Your task to perform on an android device: Open calendar and show me the fourth week of next month Image 0: 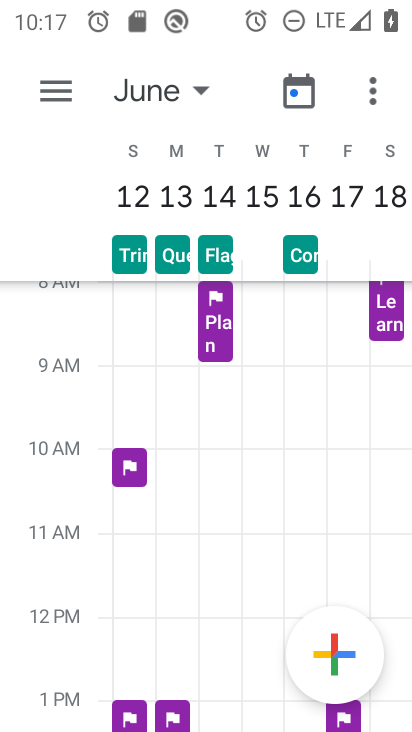
Step 0: click (117, 95)
Your task to perform on an android device: Open calendar and show me the fourth week of next month Image 1: 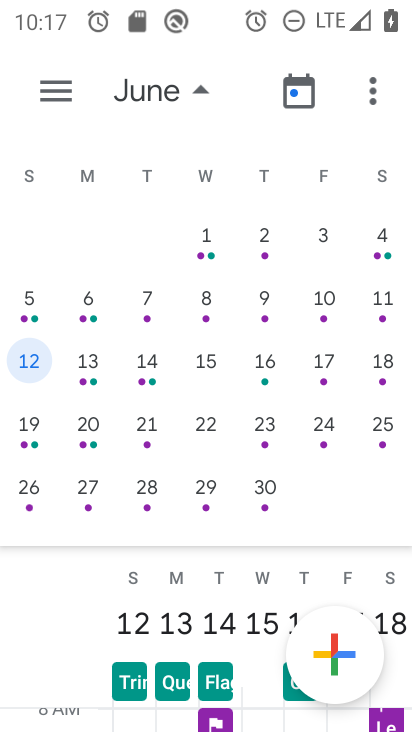
Step 1: click (295, 77)
Your task to perform on an android device: Open calendar and show me the fourth week of next month Image 2: 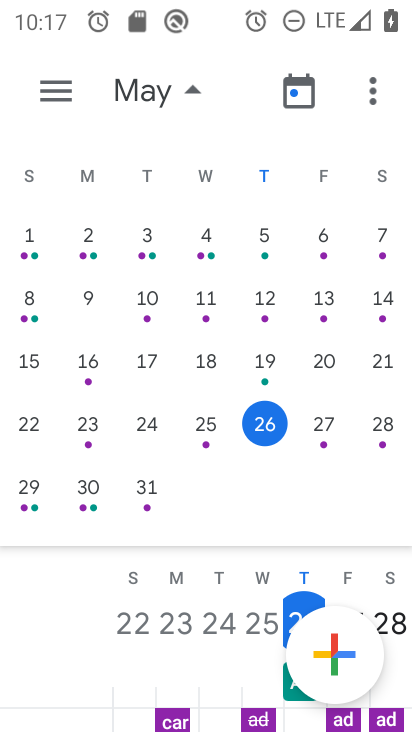
Step 2: drag from (374, 357) to (9, 158)
Your task to perform on an android device: Open calendar and show me the fourth week of next month Image 3: 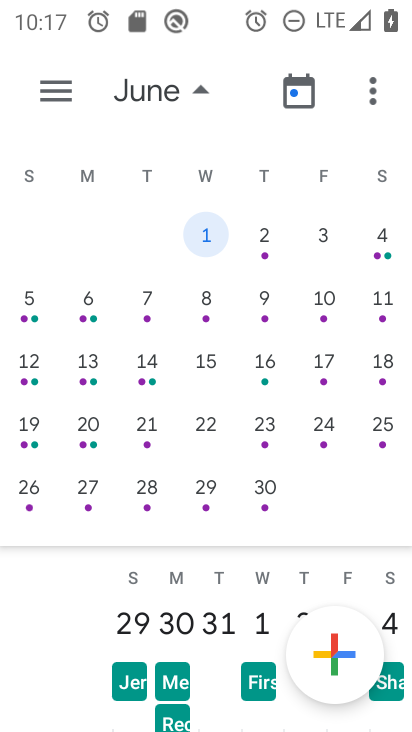
Step 3: click (26, 430)
Your task to perform on an android device: Open calendar and show me the fourth week of next month Image 4: 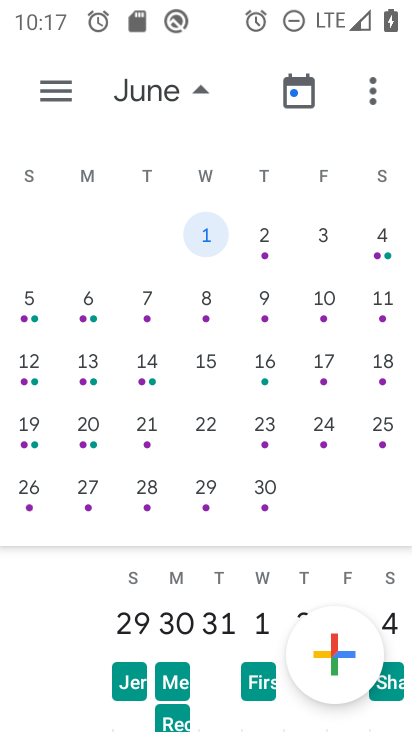
Step 4: click (32, 423)
Your task to perform on an android device: Open calendar and show me the fourth week of next month Image 5: 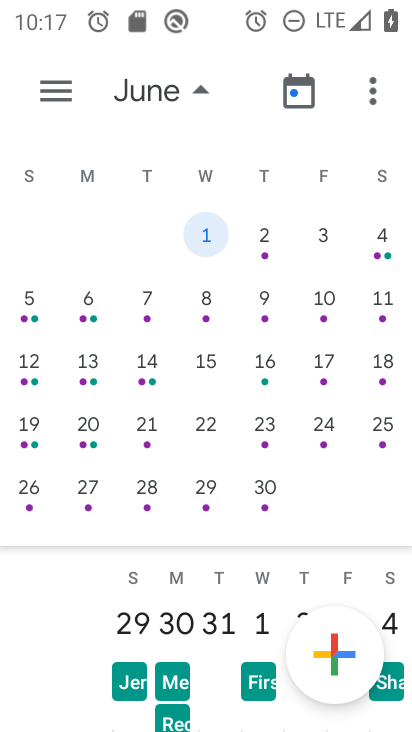
Step 5: click (41, 427)
Your task to perform on an android device: Open calendar and show me the fourth week of next month Image 6: 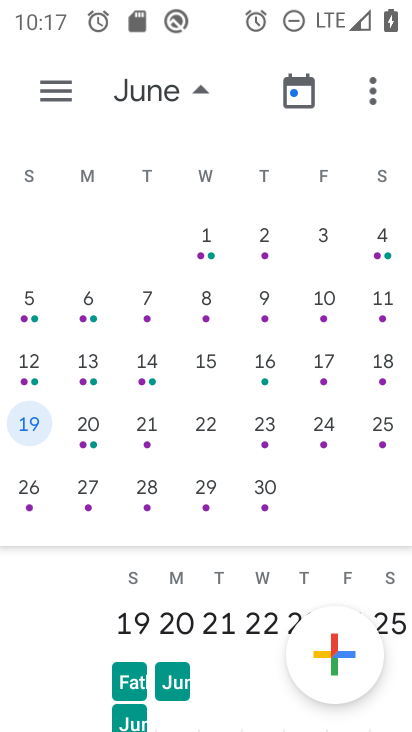
Step 6: click (52, 105)
Your task to perform on an android device: Open calendar and show me the fourth week of next month Image 7: 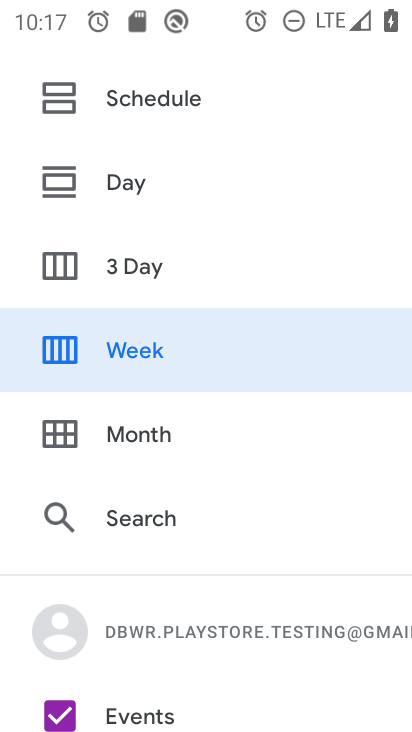
Step 7: click (159, 328)
Your task to perform on an android device: Open calendar and show me the fourth week of next month Image 8: 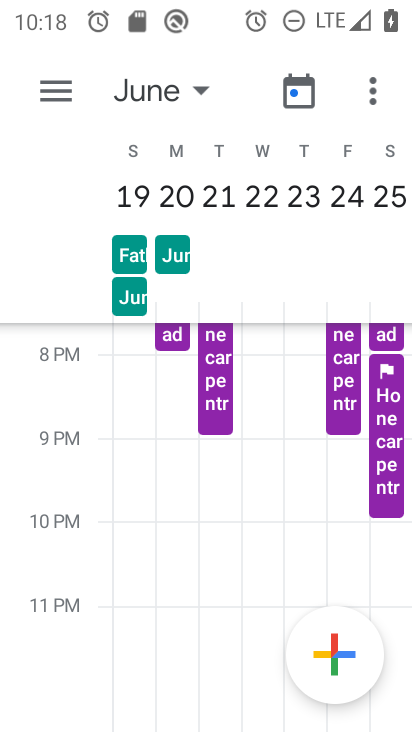
Step 8: task complete